Your task to perform on an android device: Open the calendar app, open the side menu, and click the "Day" option Image 0: 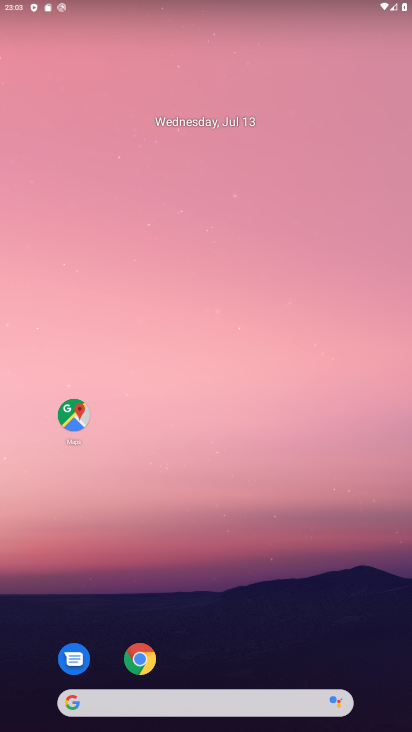
Step 0: drag from (289, 614) to (230, 57)
Your task to perform on an android device: Open the calendar app, open the side menu, and click the "Day" option Image 1: 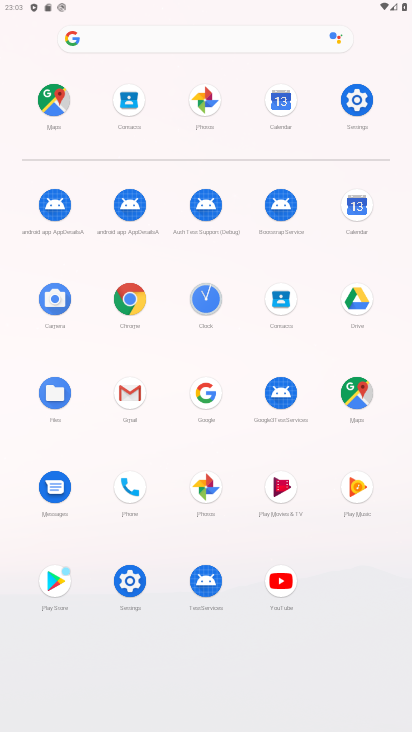
Step 1: click (358, 200)
Your task to perform on an android device: Open the calendar app, open the side menu, and click the "Day" option Image 2: 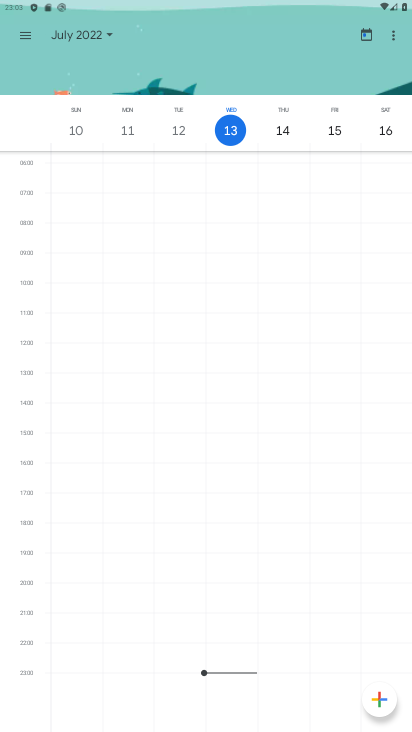
Step 2: click (23, 28)
Your task to perform on an android device: Open the calendar app, open the side menu, and click the "Day" option Image 3: 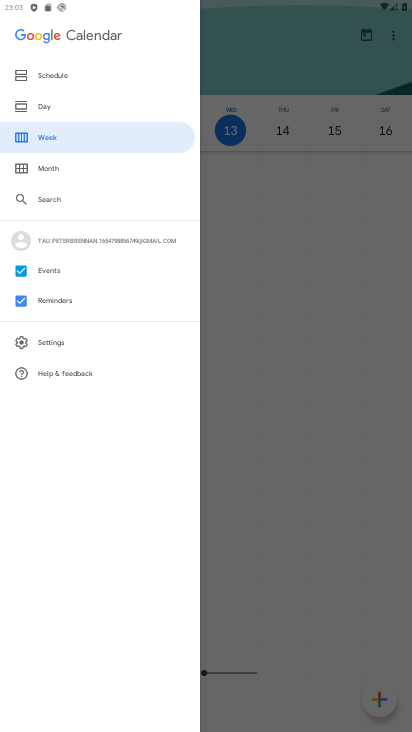
Step 3: click (41, 103)
Your task to perform on an android device: Open the calendar app, open the side menu, and click the "Day" option Image 4: 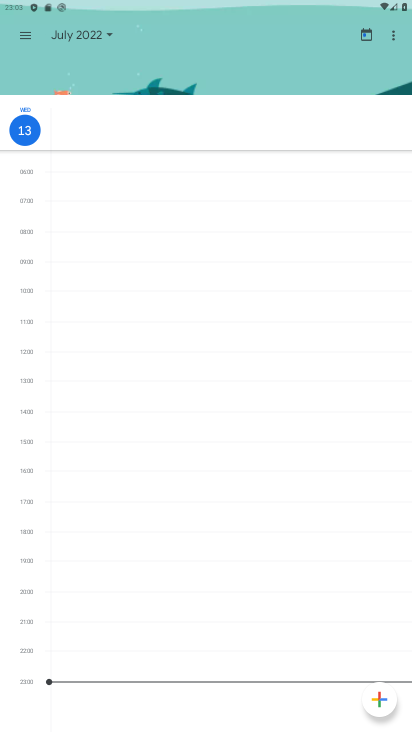
Step 4: task complete